Your task to perform on an android device: check data usage Image 0: 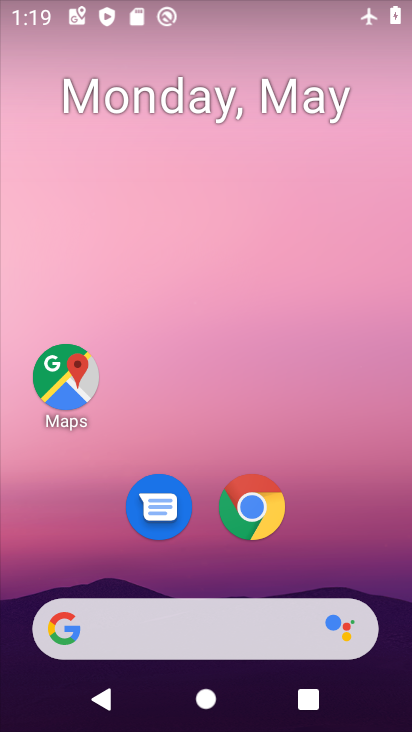
Step 0: click (255, 504)
Your task to perform on an android device: check data usage Image 1: 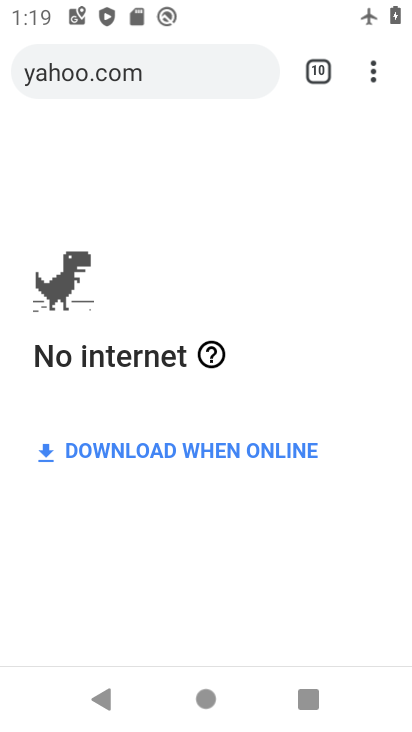
Step 1: task complete